Your task to perform on an android device: turn off picture-in-picture Image 0: 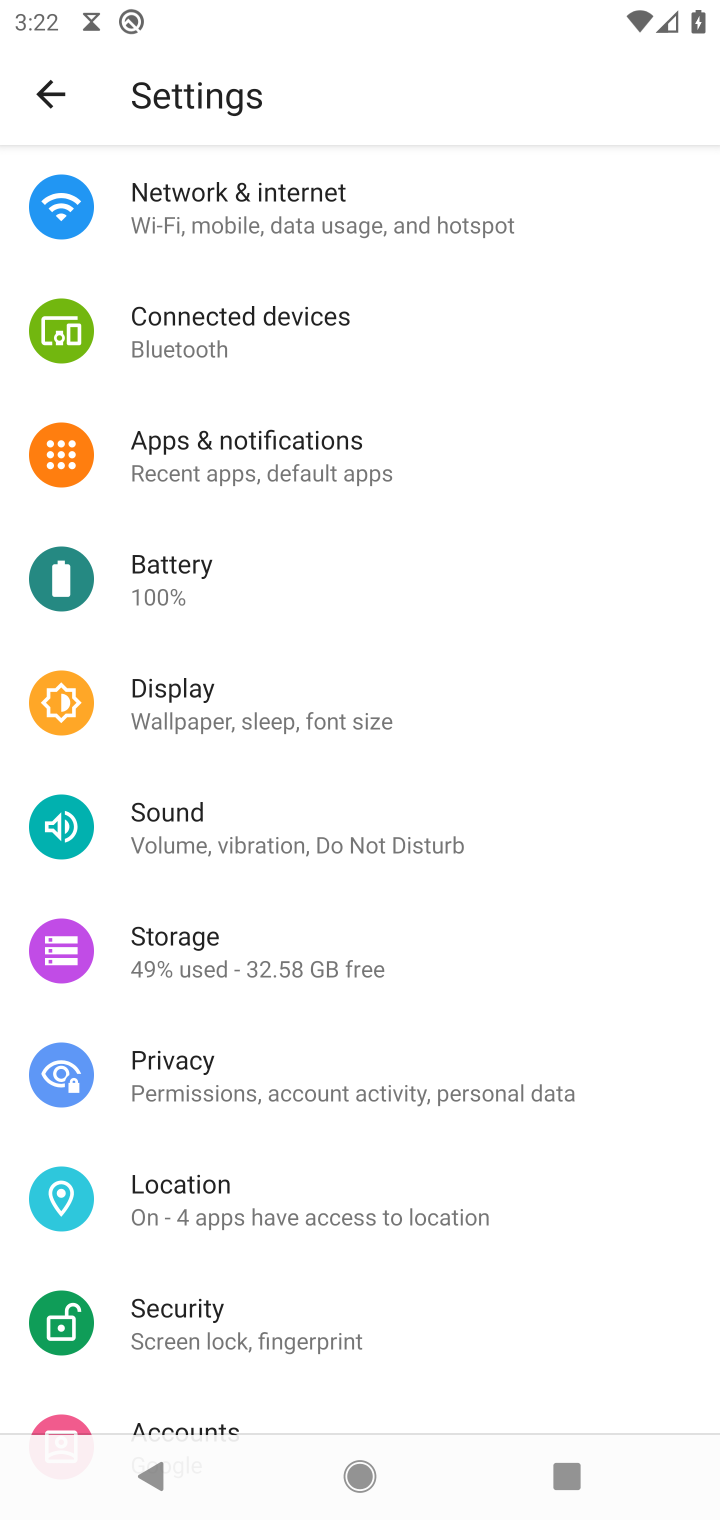
Step 0: press home button
Your task to perform on an android device: turn off picture-in-picture Image 1: 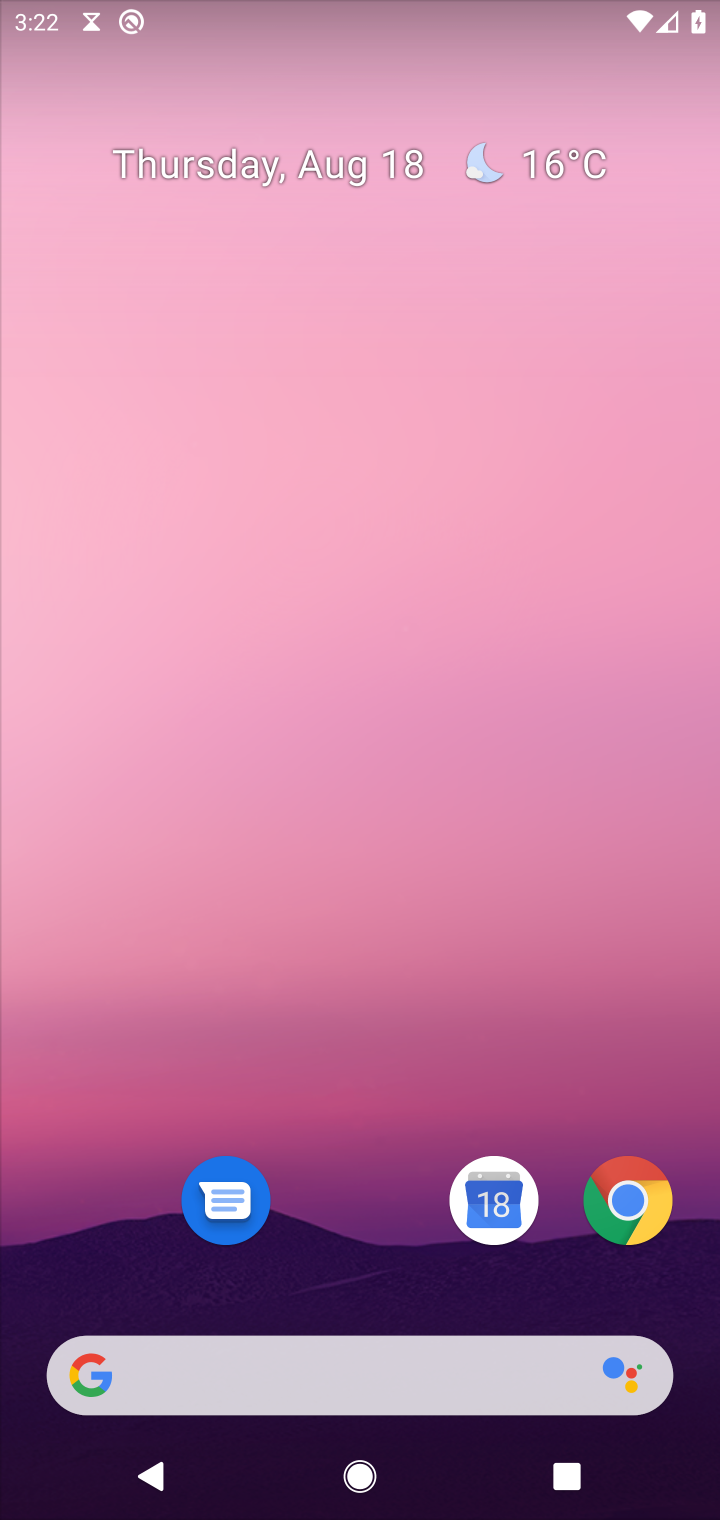
Step 1: drag from (379, 1200) to (390, 469)
Your task to perform on an android device: turn off picture-in-picture Image 2: 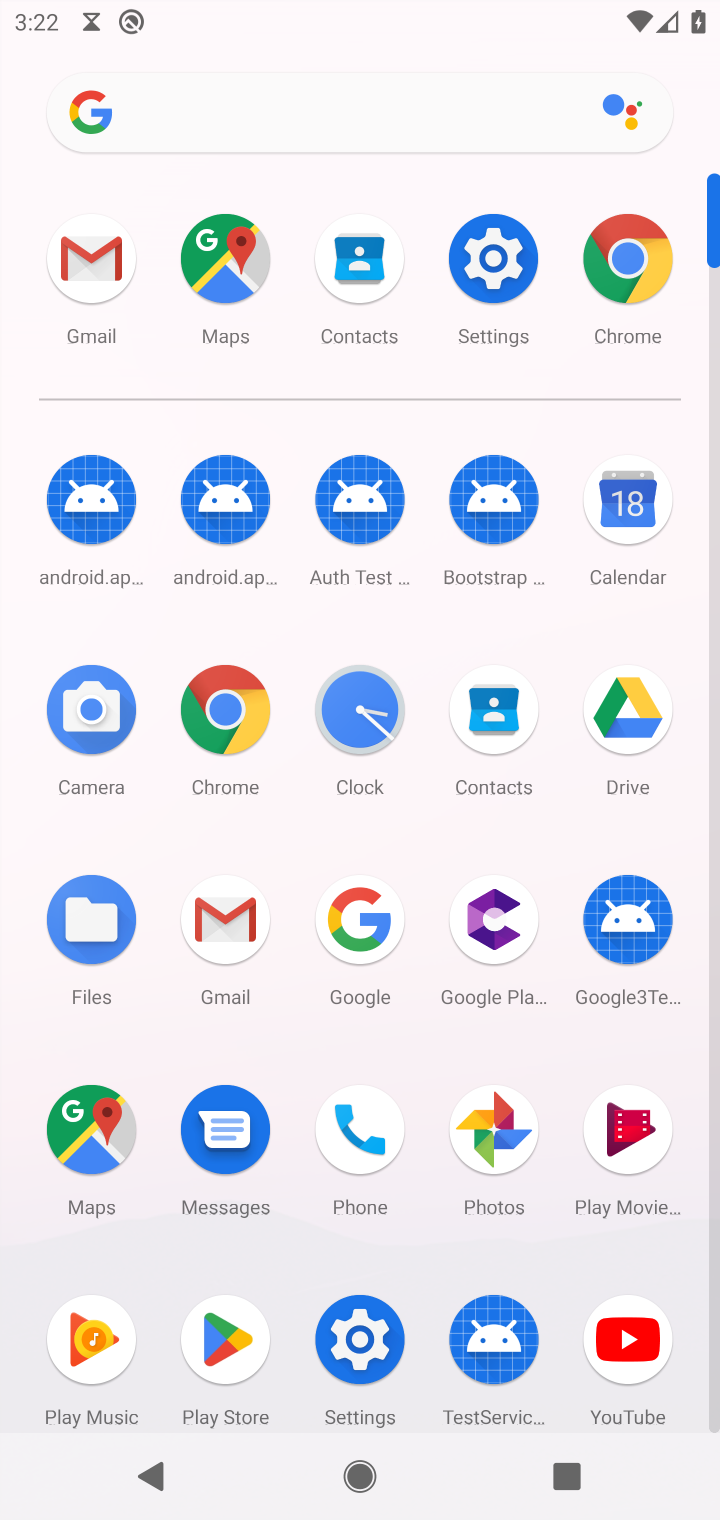
Step 2: click (235, 700)
Your task to perform on an android device: turn off picture-in-picture Image 3: 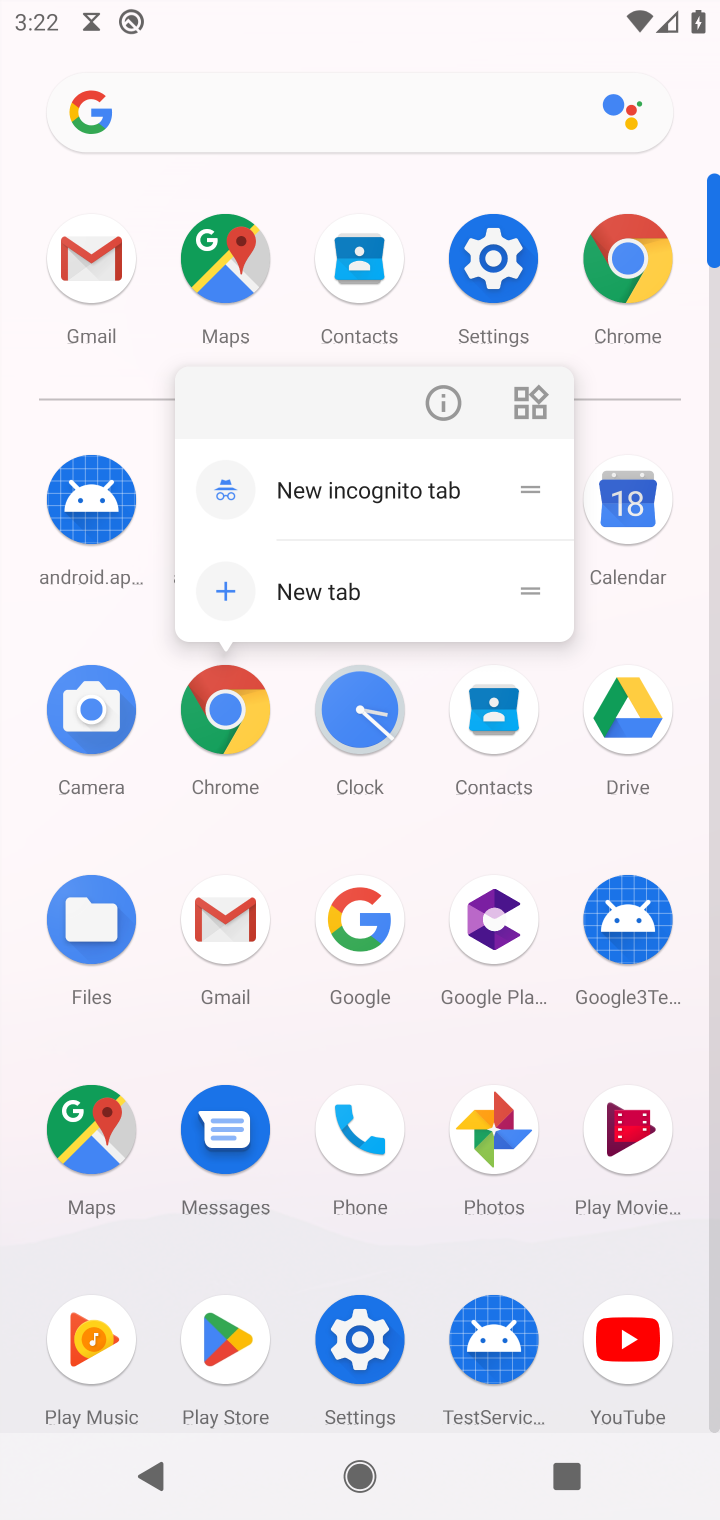
Step 3: click (228, 716)
Your task to perform on an android device: turn off picture-in-picture Image 4: 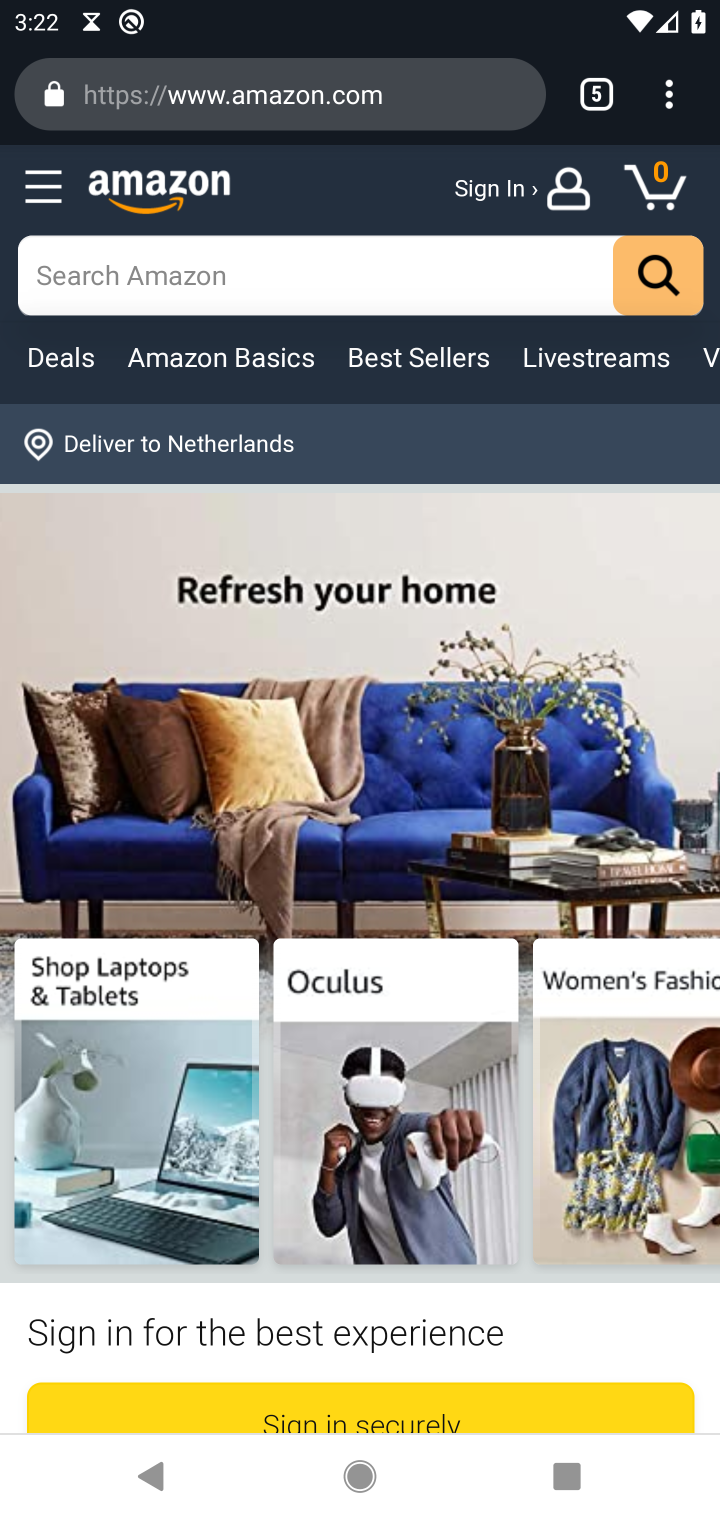
Step 4: drag from (667, 95) to (340, 1135)
Your task to perform on an android device: turn off picture-in-picture Image 5: 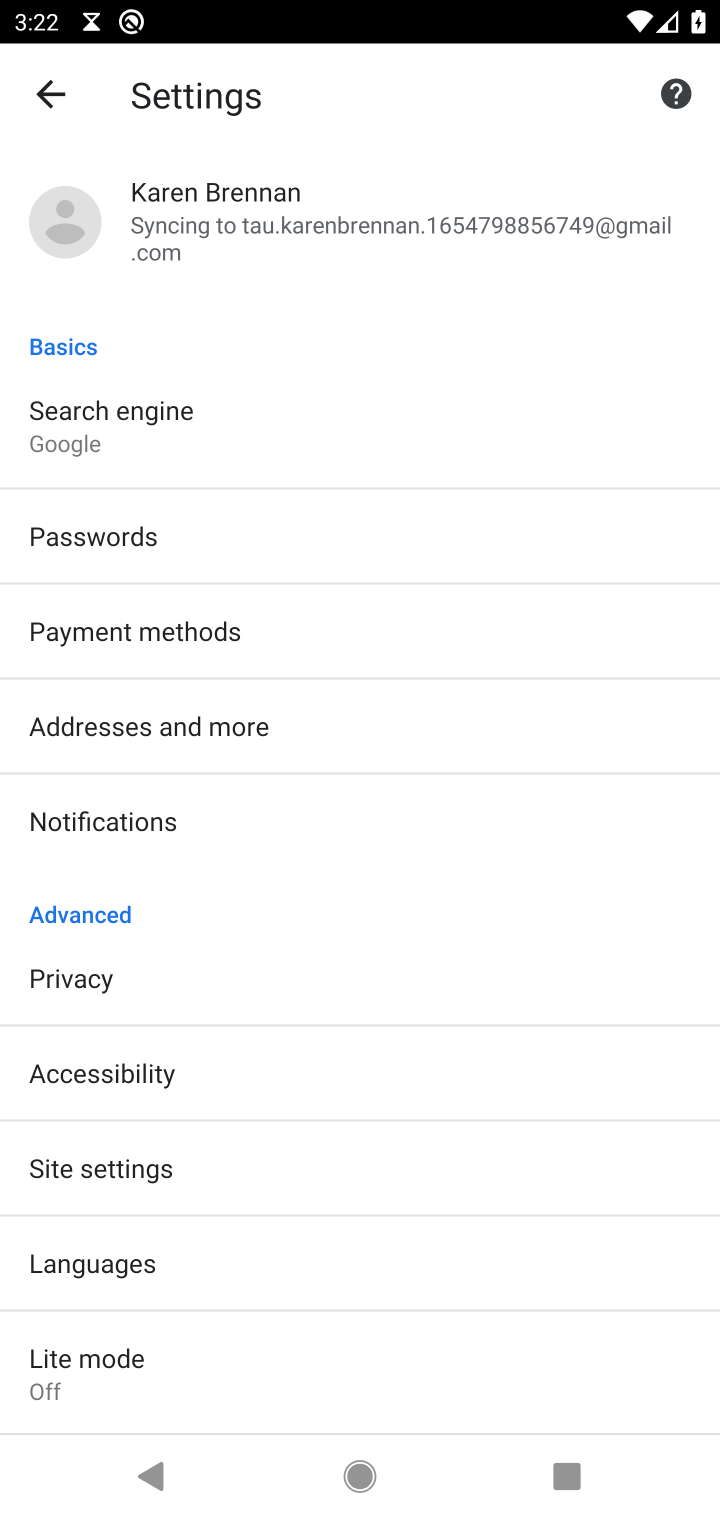
Step 5: click (170, 1164)
Your task to perform on an android device: turn off picture-in-picture Image 6: 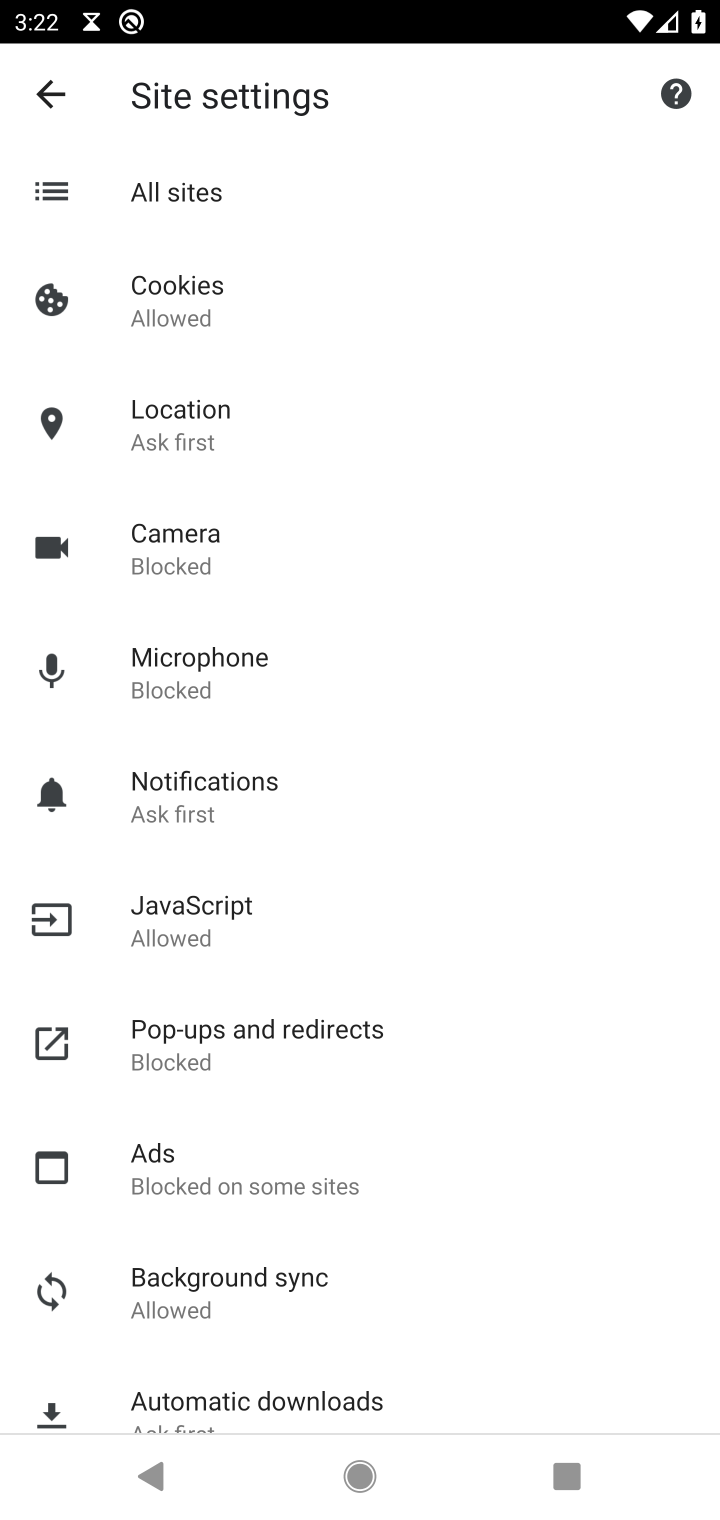
Step 6: click (217, 1032)
Your task to perform on an android device: turn off picture-in-picture Image 7: 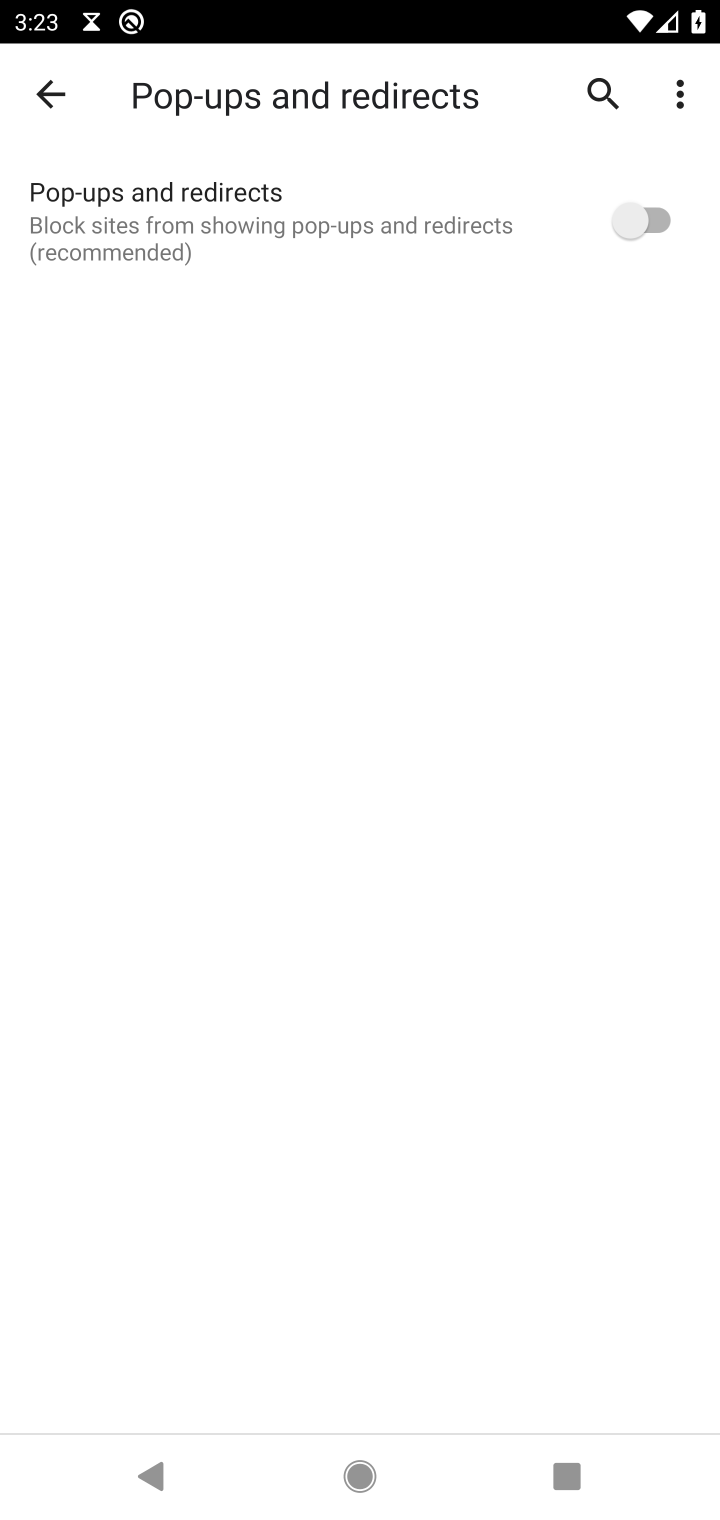
Step 7: task complete